Your task to perform on an android device: Open privacy settings Image 0: 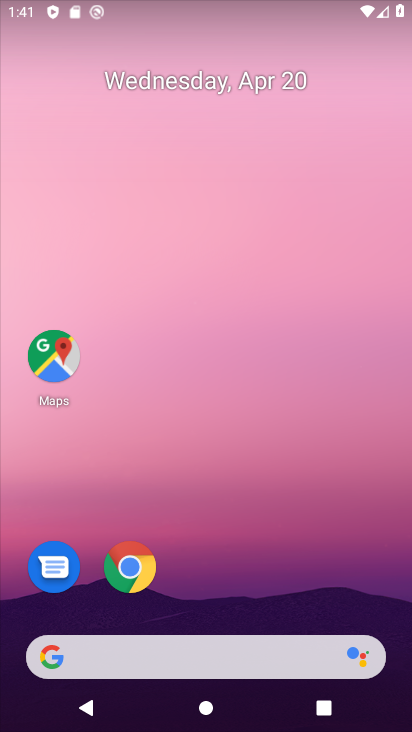
Step 0: drag from (228, 540) to (203, 16)
Your task to perform on an android device: Open privacy settings Image 1: 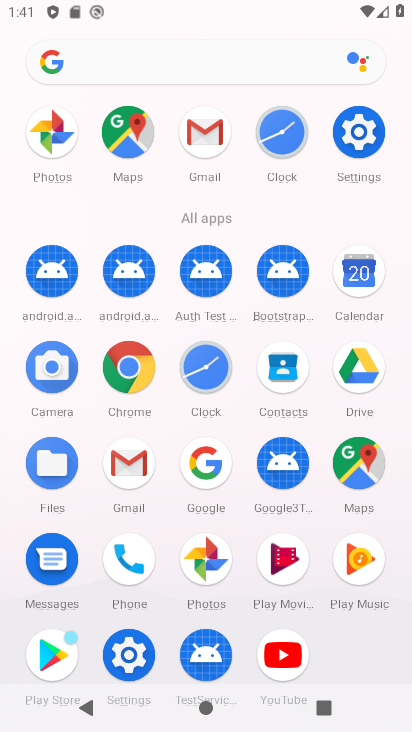
Step 1: click (382, 144)
Your task to perform on an android device: Open privacy settings Image 2: 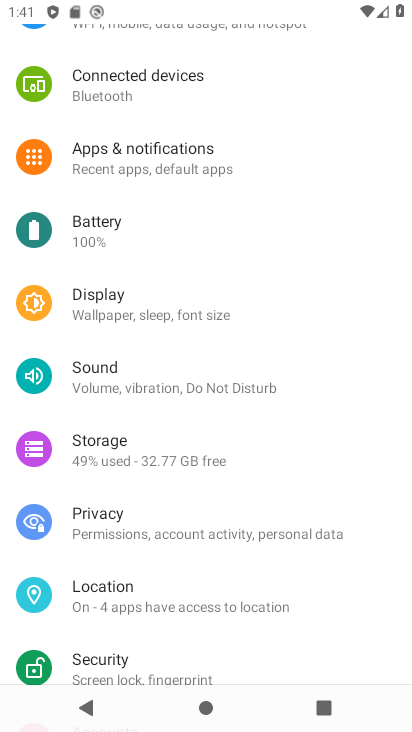
Step 2: click (115, 529)
Your task to perform on an android device: Open privacy settings Image 3: 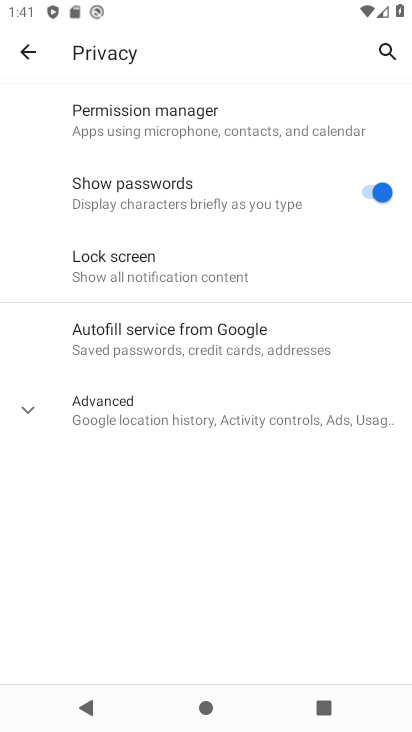
Step 3: task complete